Your task to perform on an android device: Open sound settings Image 0: 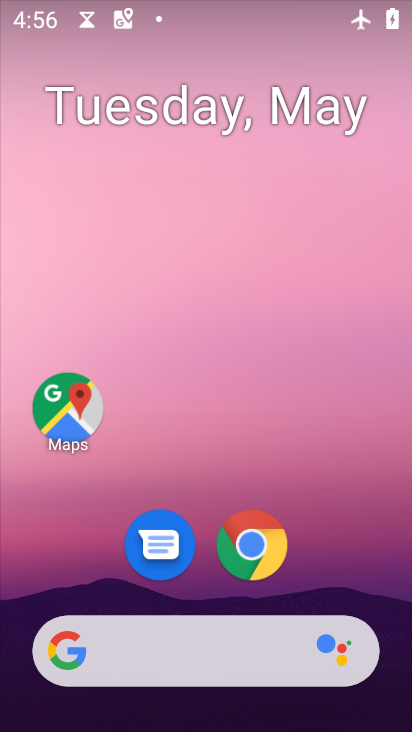
Step 0: drag from (329, 567) to (256, 149)
Your task to perform on an android device: Open sound settings Image 1: 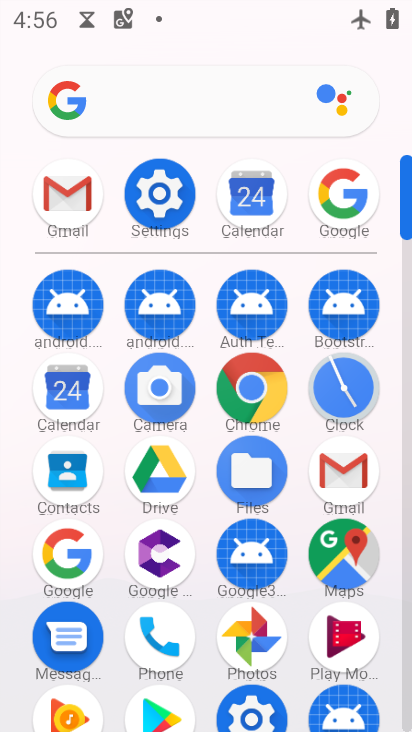
Step 1: click (161, 192)
Your task to perform on an android device: Open sound settings Image 2: 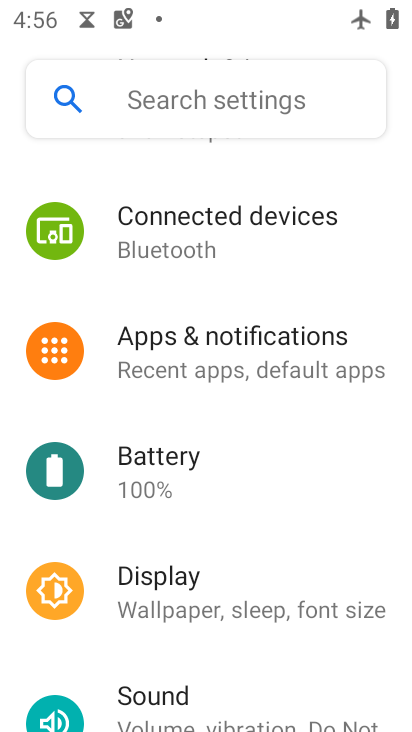
Step 2: drag from (229, 526) to (290, 384)
Your task to perform on an android device: Open sound settings Image 3: 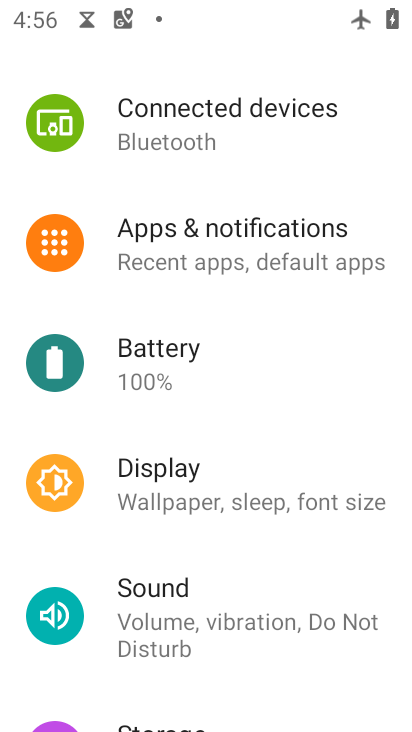
Step 3: click (185, 619)
Your task to perform on an android device: Open sound settings Image 4: 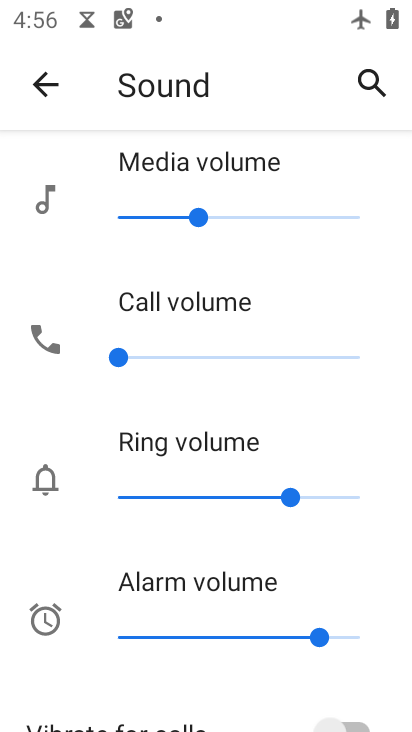
Step 4: task complete